Your task to perform on an android device: clear all cookies in the chrome app Image 0: 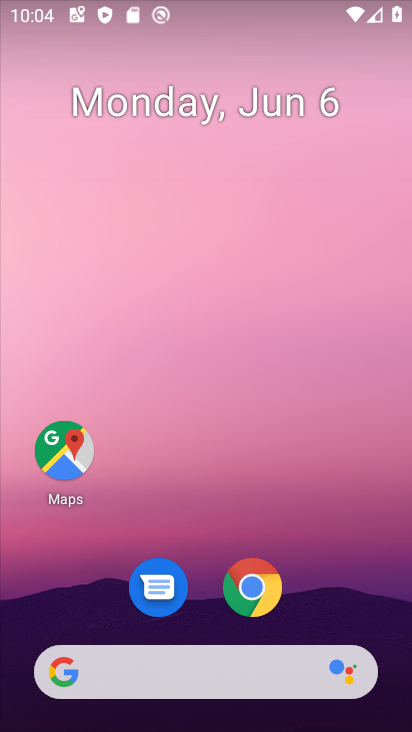
Step 0: click (278, 555)
Your task to perform on an android device: clear all cookies in the chrome app Image 1: 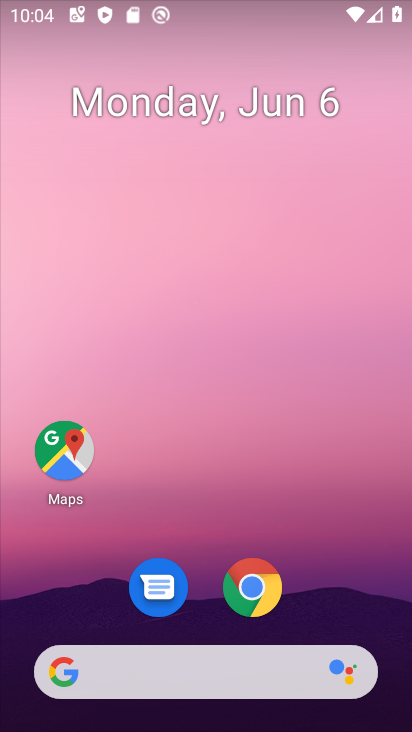
Step 1: click (278, 555)
Your task to perform on an android device: clear all cookies in the chrome app Image 2: 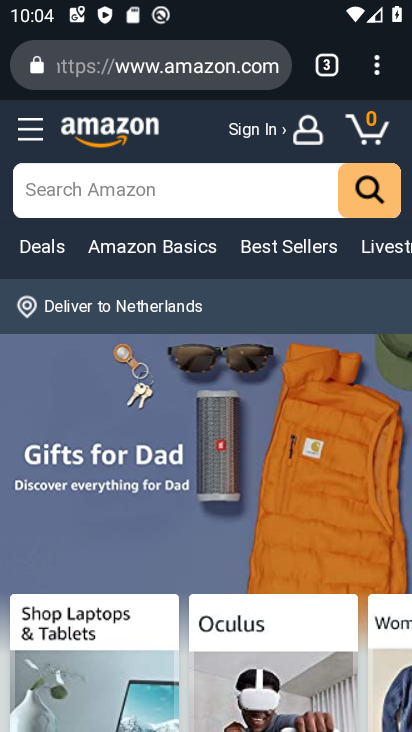
Step 2: click (375, 61)
Your task to perform on an android device: clear all cookies in the chrome app Image 3: 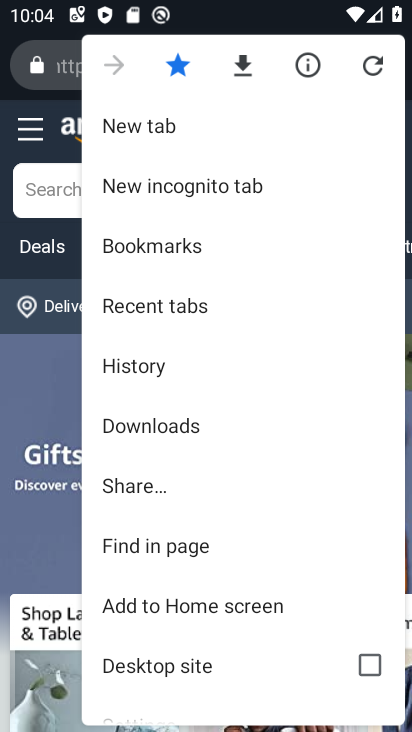
Step 3: click (164, 367)
Your task to perform on an android device: clear all cookies in the chrome app Image 4: 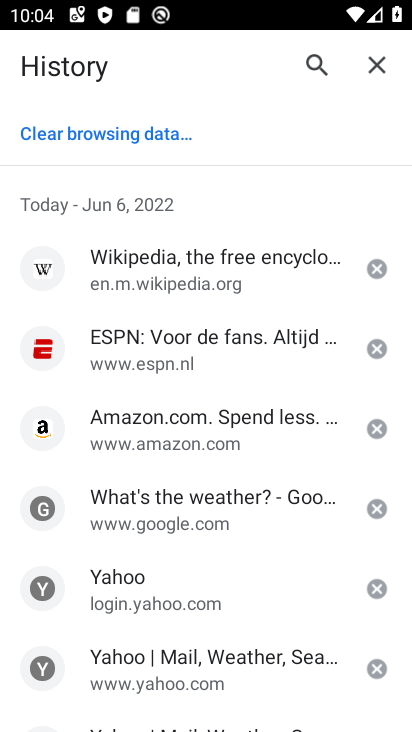
Step 4: click (124, 142)
Your task to perform on an android device: clear all cookies in the chrome app Image 5: 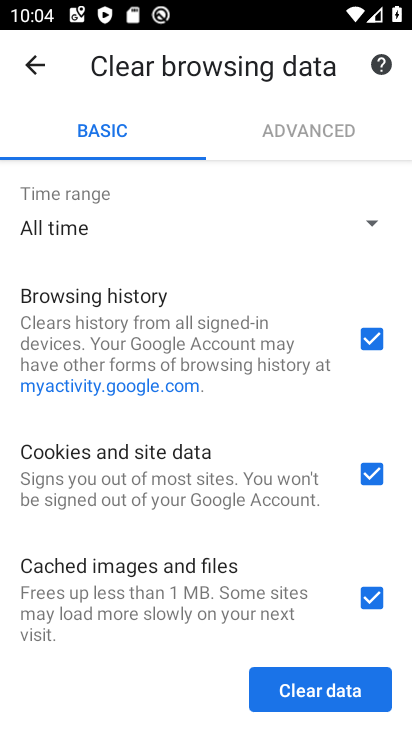
Step 5: click (294, 712)
Your task to perform on an android device: clear all cookies in the chrome app Image 6: 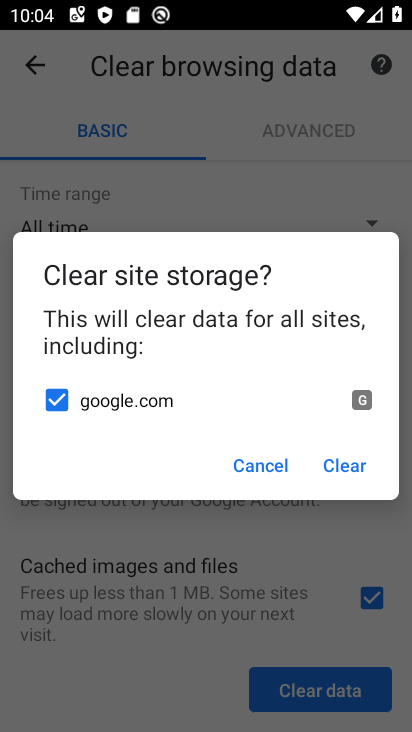
Step 6: click (336, 470)
Your task to perform on an android device: clear all cookies in the chrome app Image 7: 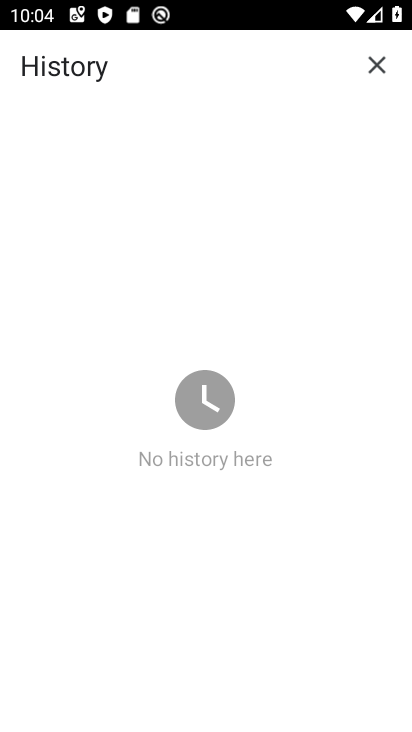
Step 7: task complete